Your task to perform on an android device: change the clock display to show seconds Image 0: 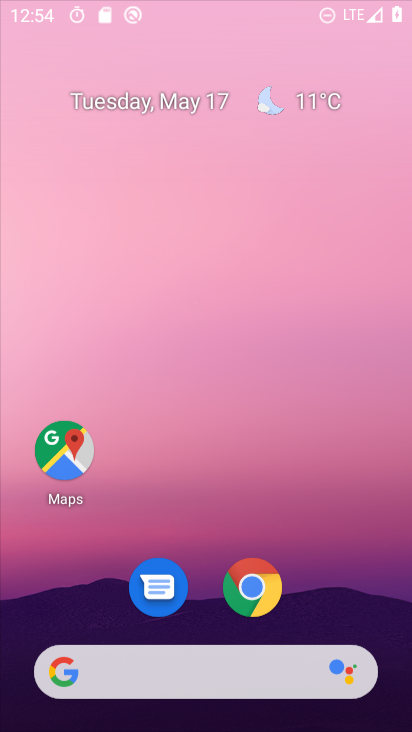
Step 0: click (281, 172)
Your task to perform on an android device: change the clock display to show seconds Image 1: 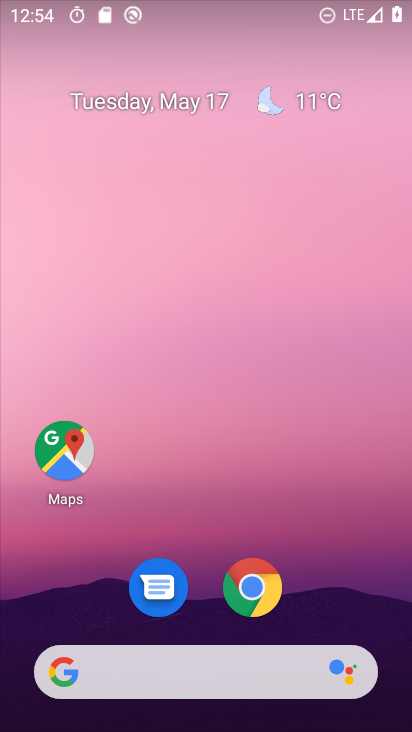
Step 1: drag from (240, 629) to (247, 241)
Your task to perform on an android device: change the clock display to show seconds Image 2: 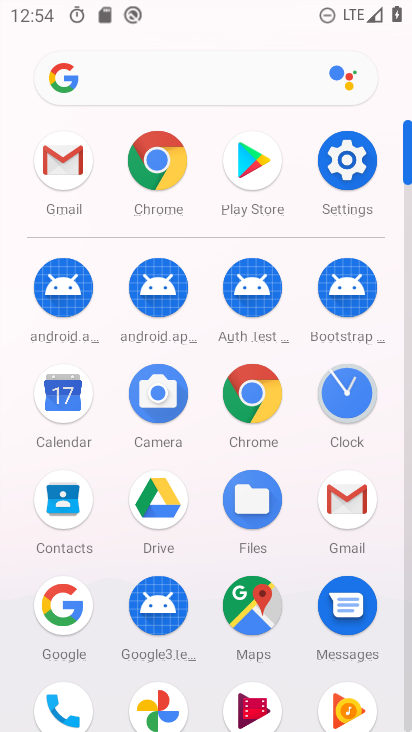
Step 2: click (364, 403)
Your task to perform on an android device: change the clock display to show seconds Image 3: 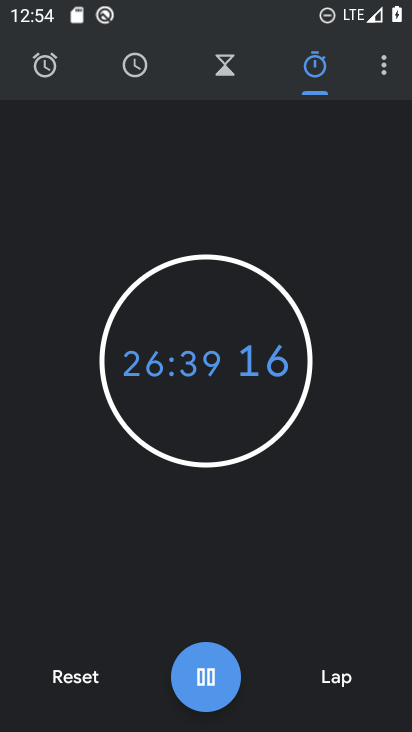
Step 3: click (381, 63)
Your task to perform on an android device: change the clock display to show seconds Image 4: 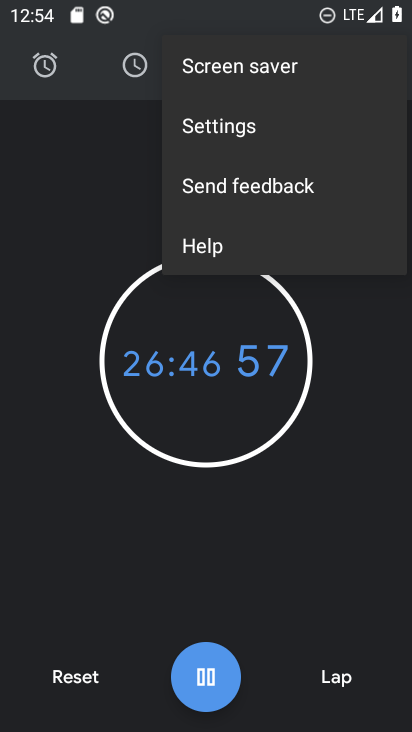
Step 4: click (241, 126)
Your task to perform on an android device: change the clock display to show seconds Image 5: 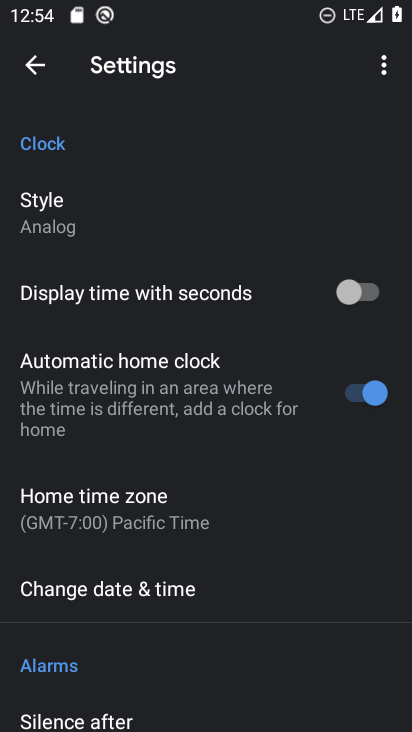
Step 5: click (337, 284)
Your task to perform on an android device: change the clock display to show seconds Image 6: 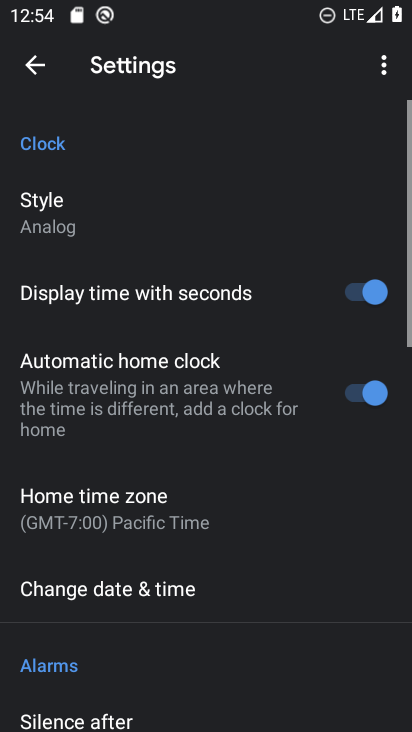
Step 6: task complete